Your task to perform on an android device: Open calendar and show me the third week of next month Image 0: 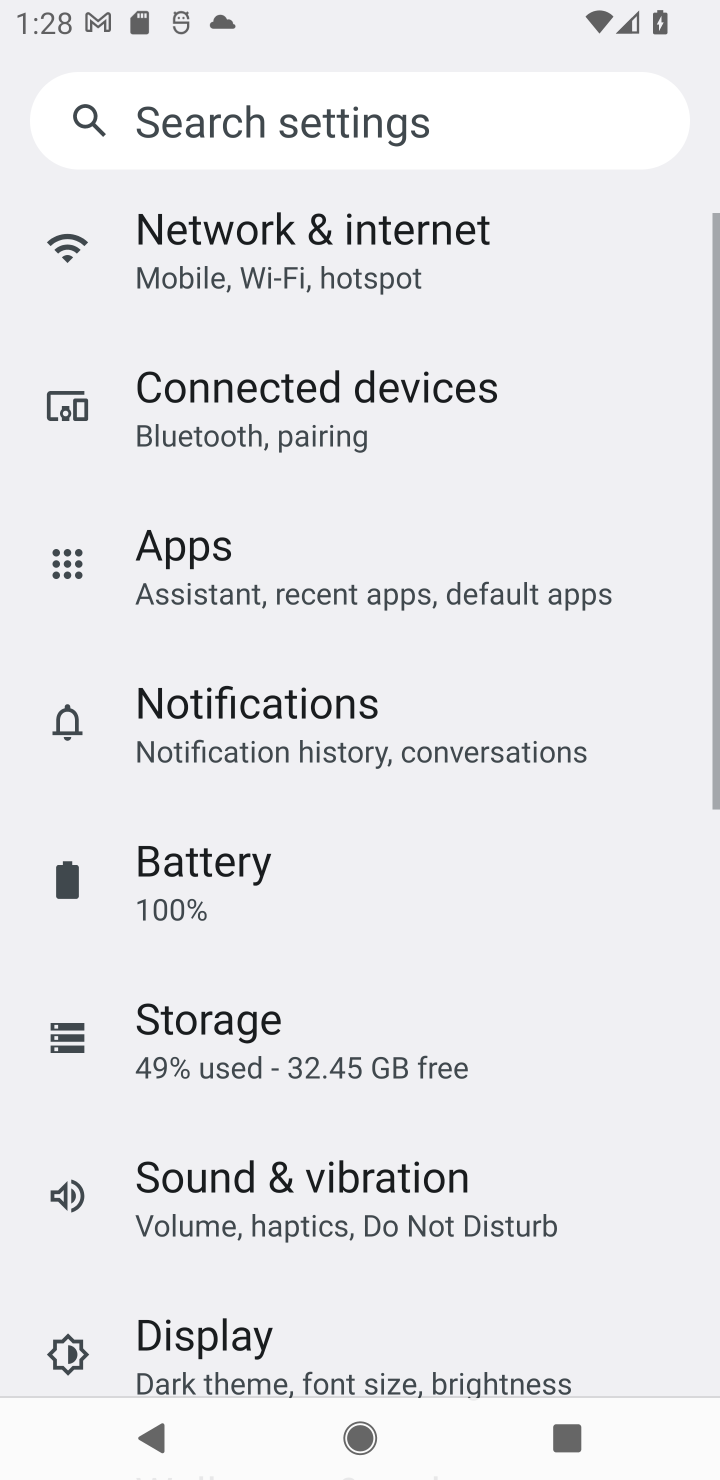
Step 0: press home button
Your task to perform on an android device: Open calendar and show me the third week of next month Image 1: 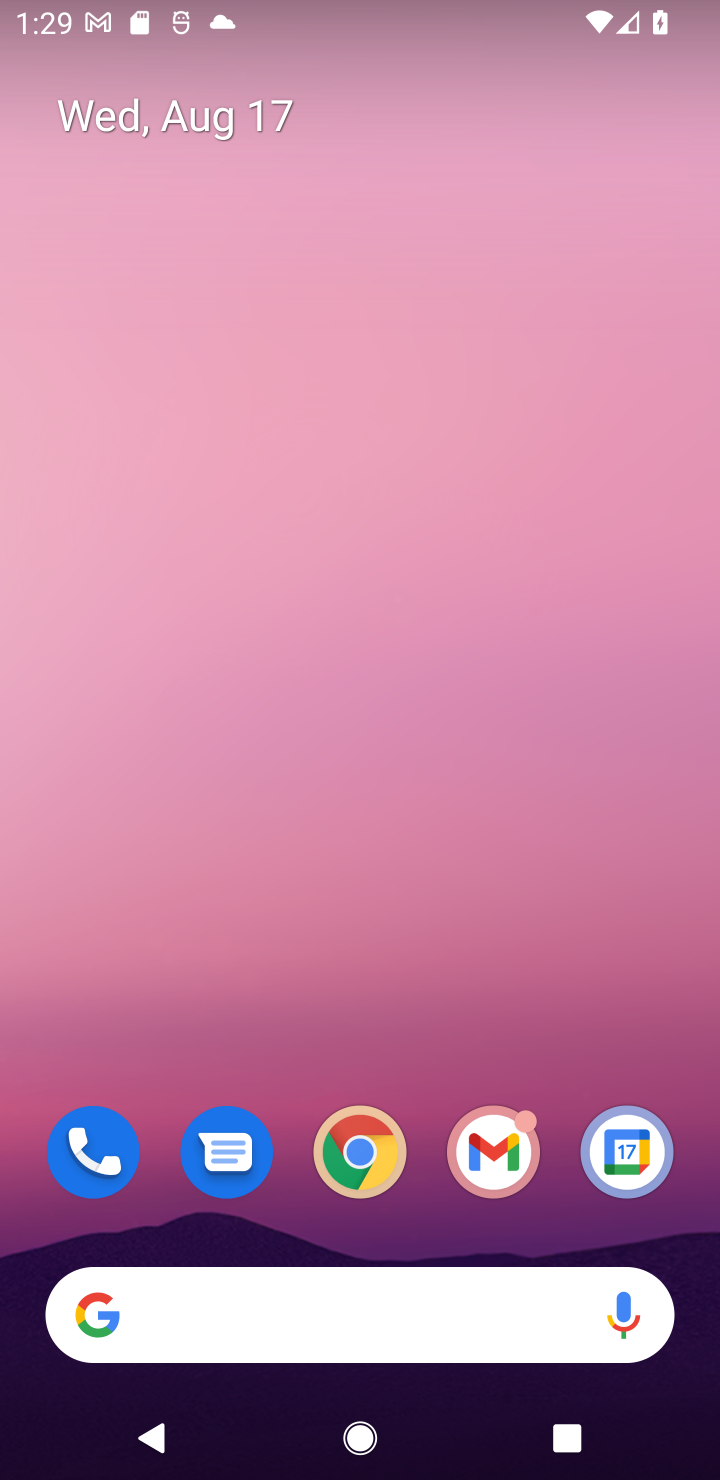
Step 1: drag from (698, 1230) to (350, 42)
Your task to perform on an android device: Open calendar and show me the third week of next month Image 2: 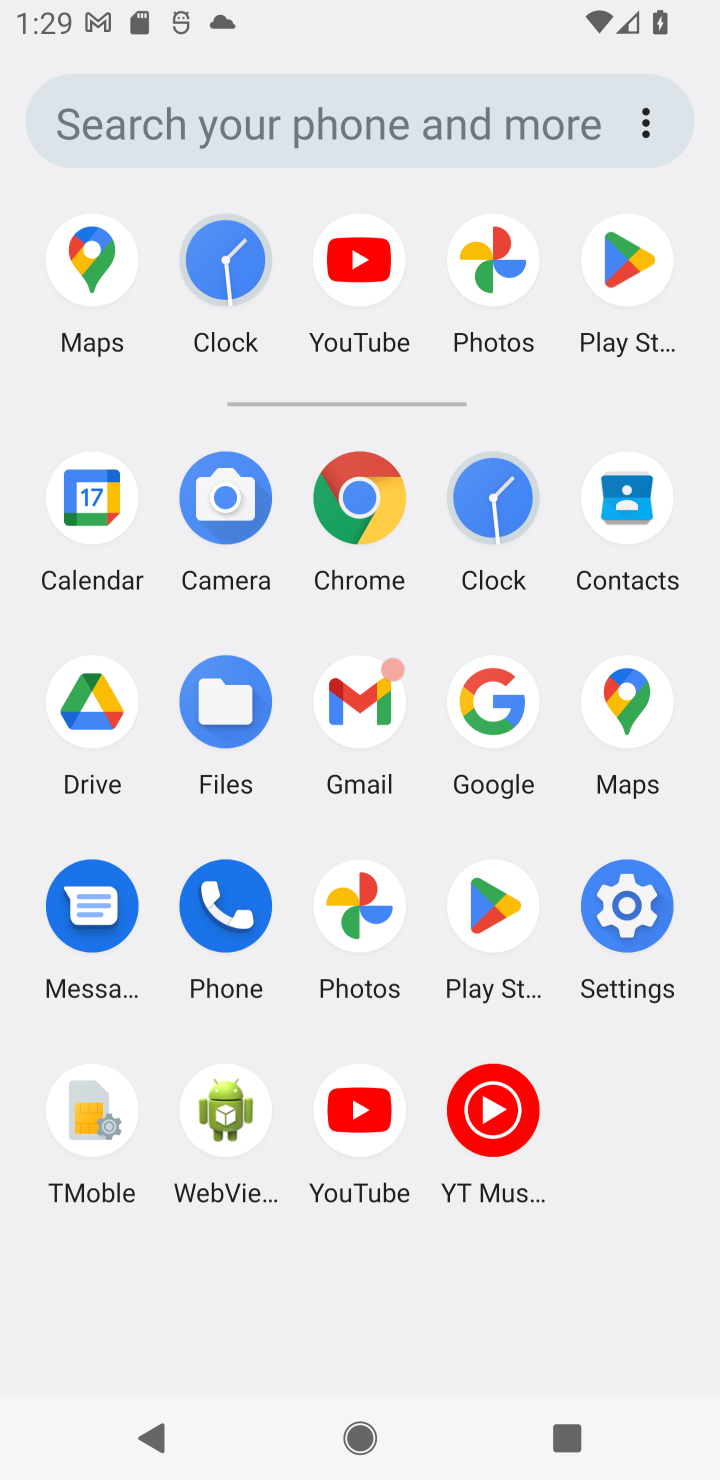
Step 2: click (86, 508)
Your task to perform on an android device: Open calendar and show me the third week of next month Image 3: 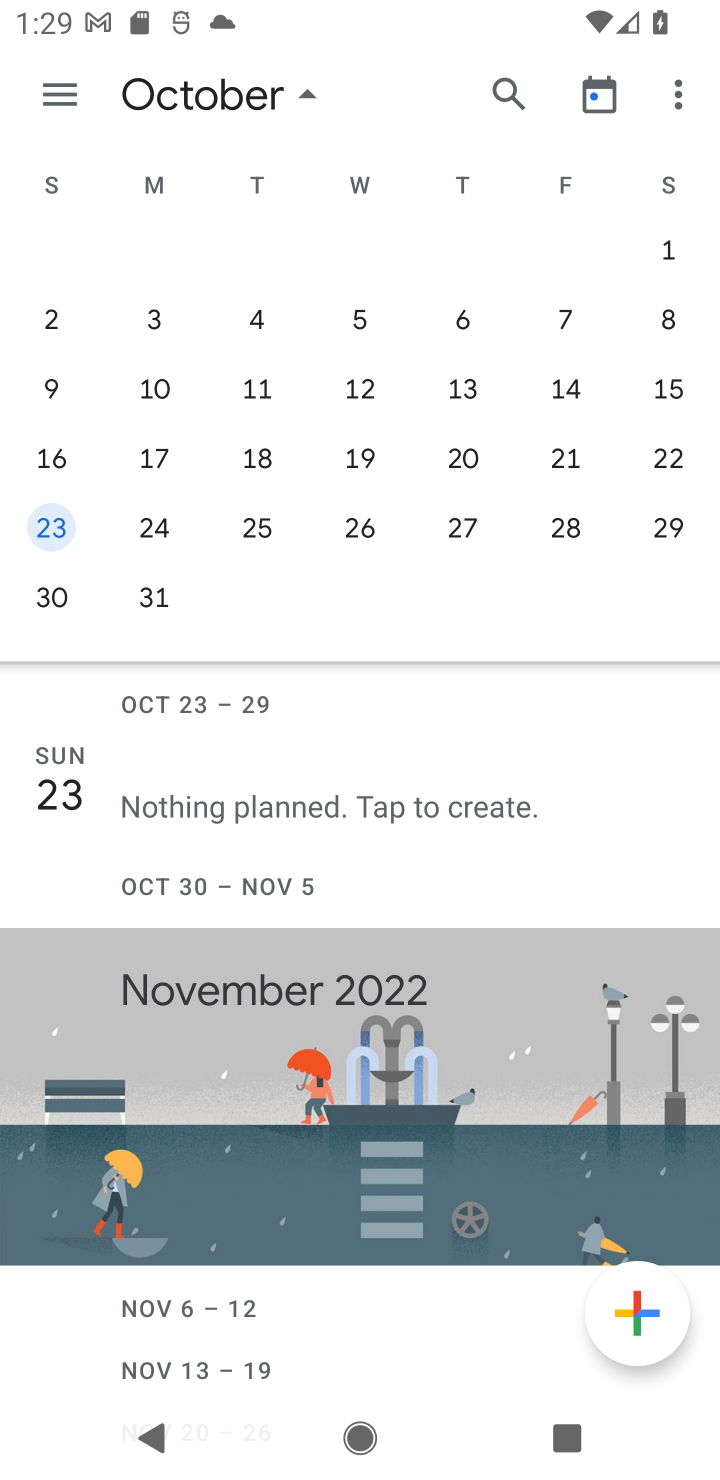
Step 3: drag from (667, 325) to (34, 567)
Your task to perform on an android device: Open calendar and show me the third week of next month Image 4: 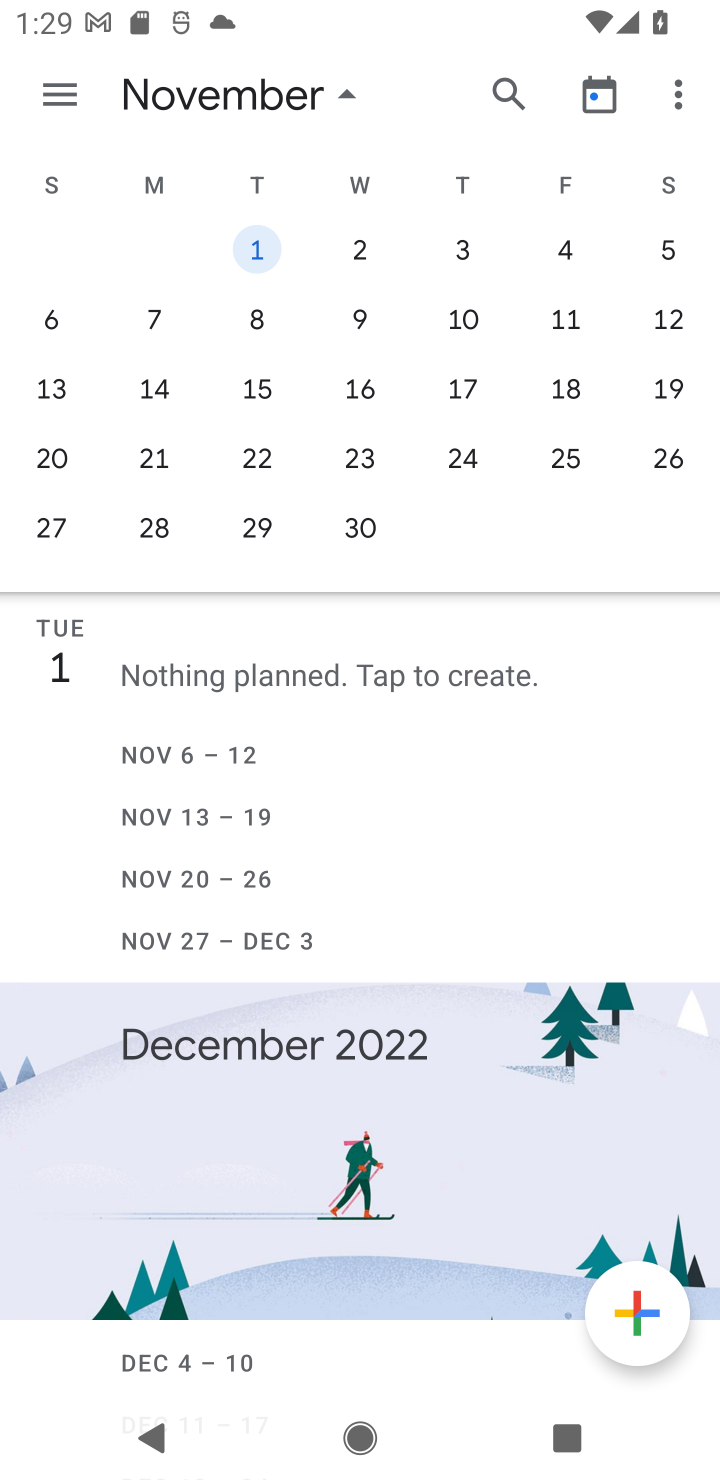
Step 4: click (50, 458)
Your task to perform on an android device: Open calendar and show me the third week of next month Image 5: 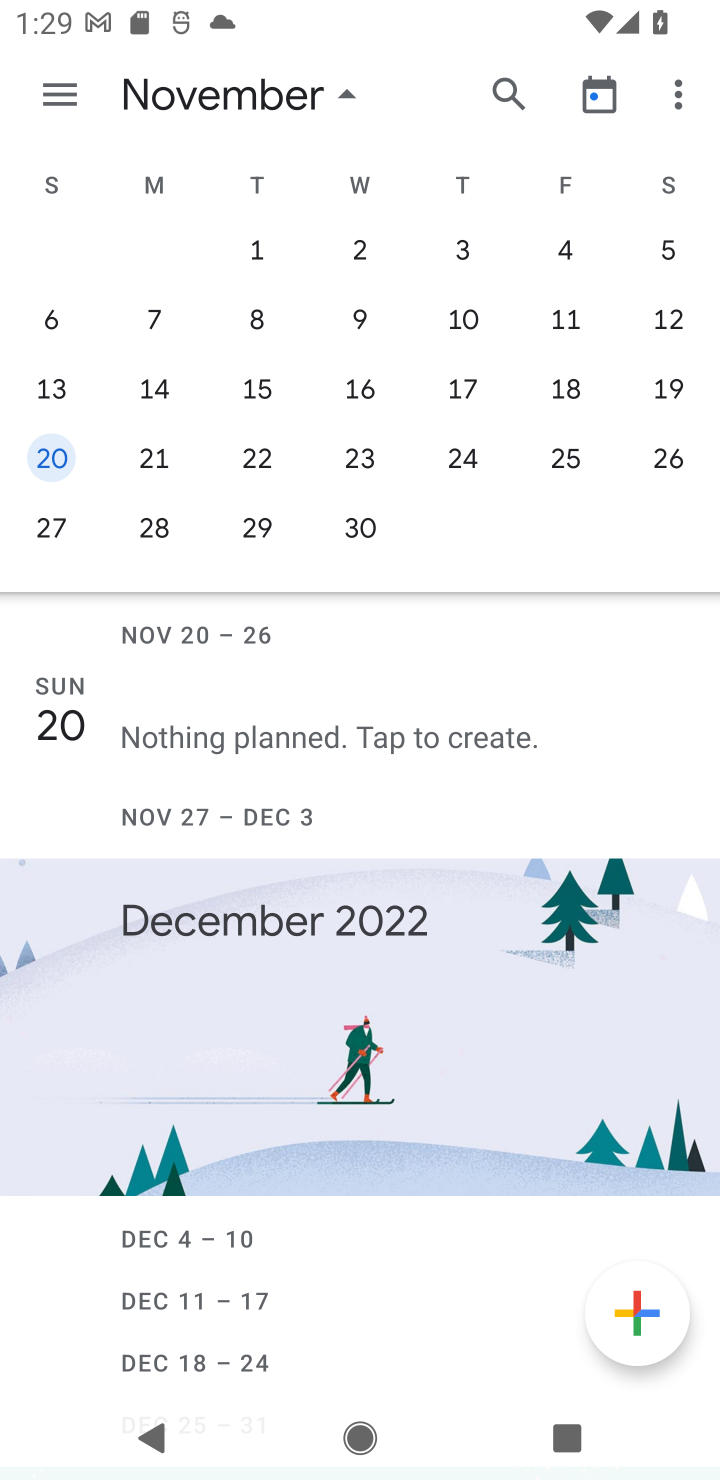
Step 5: task complete